Your task to perform on an android device: Go to network settings Image 0: 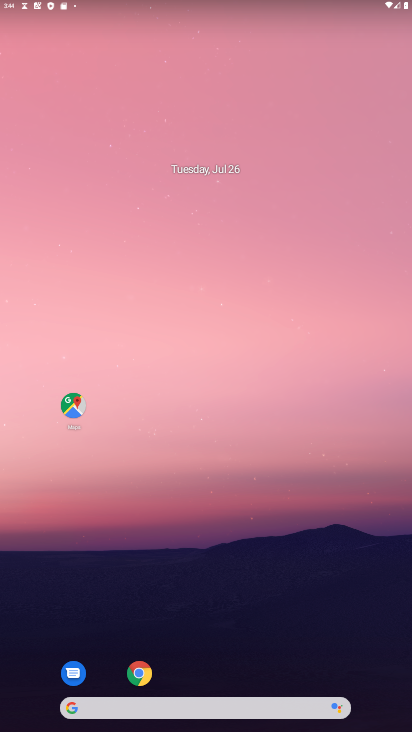
Step 0: drag from (201, 710) to (291, 361)
Your task to perform on an android device: Go to network settings Image 1: 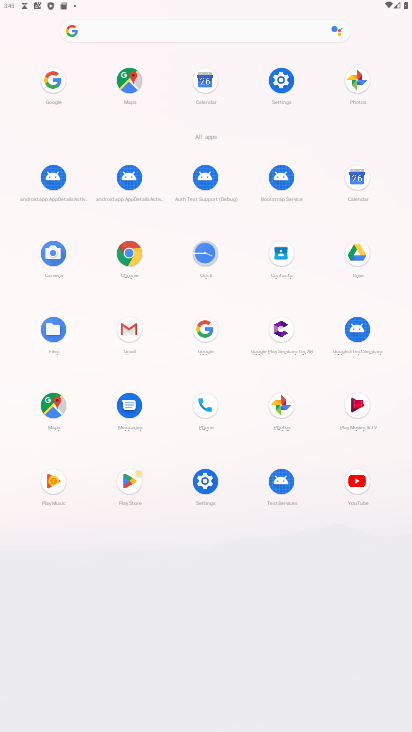
Step 1: click (279, 79)
Your task to perform on an android device: Go to network settings Image 2: 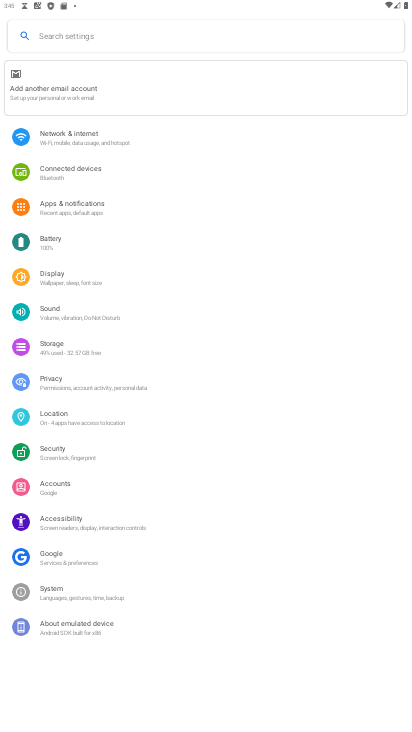
Step 2: click (87, 140)
Your task to perform on an android device: Go to network settings Image 3: 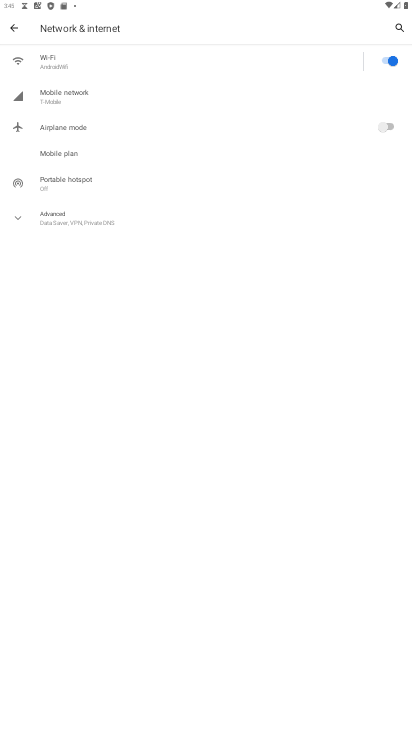
Step 3: task complete